Your task to perform on an android device: see creations saved in the google photos Image 0: 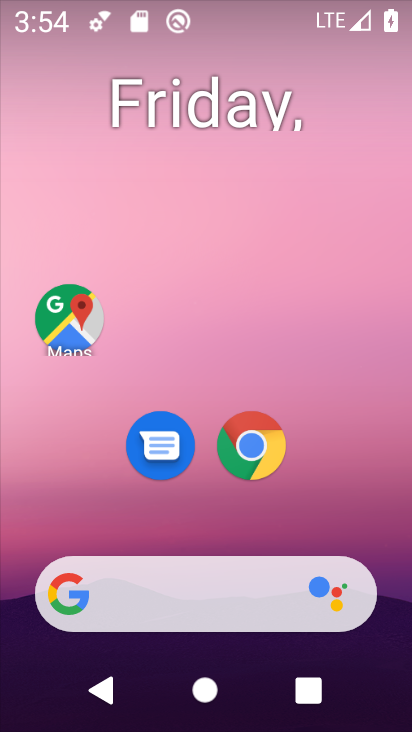
Step 0: drag from (389, 557) to (338, 169)
Your task to perform on an android device: see creations saved in the google photos Image 1: 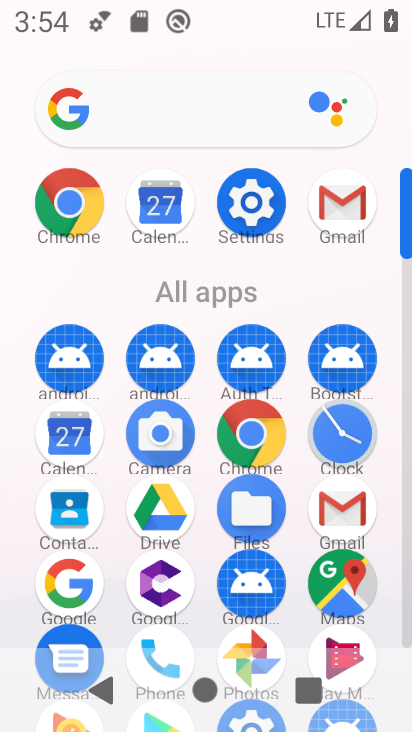
Step 1: click (261, 639)
Your task to perform on an android device: see creations saved in the google photos Image 2: 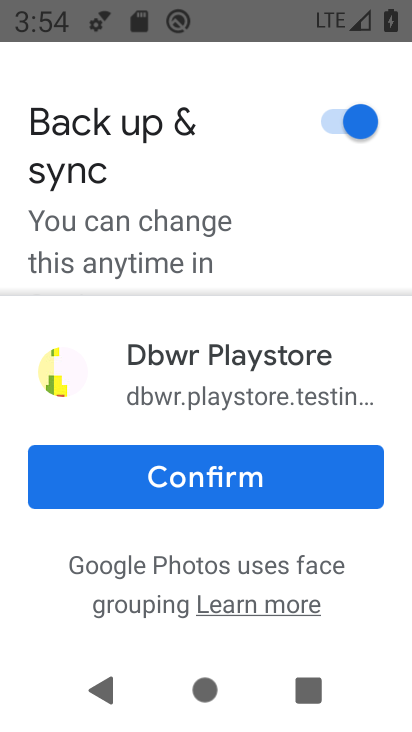
Step 2: drag from (222, 468) to (183, 468)
Your task to perform on an android device: see creations saved in the google photos Image 3: 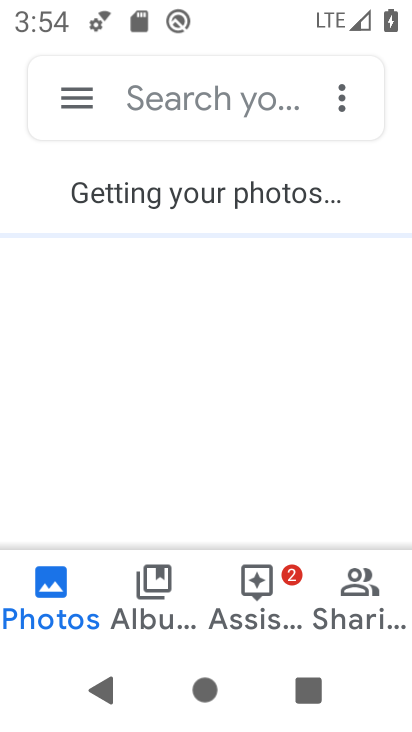
Step 3: click (228, 100)
Your task to perform on an android device: see creations saved in the google photos Image 4: 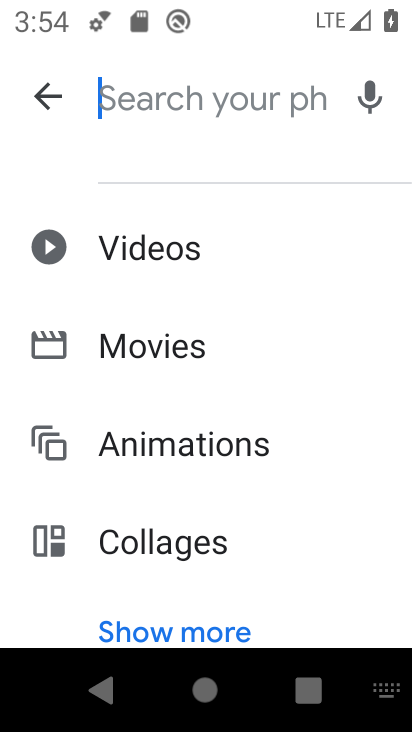
Step 4: click (163, 638)
Your task to perform on an android device: see creations saved in the google photos Image 5: 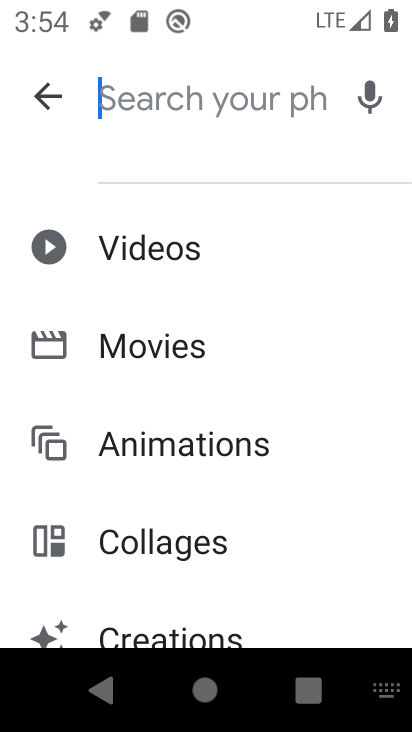
Step 5: drag from (161, 600) to (138, 387)
Your task to perform on an android device: see creations saved in the google photos Image 6: 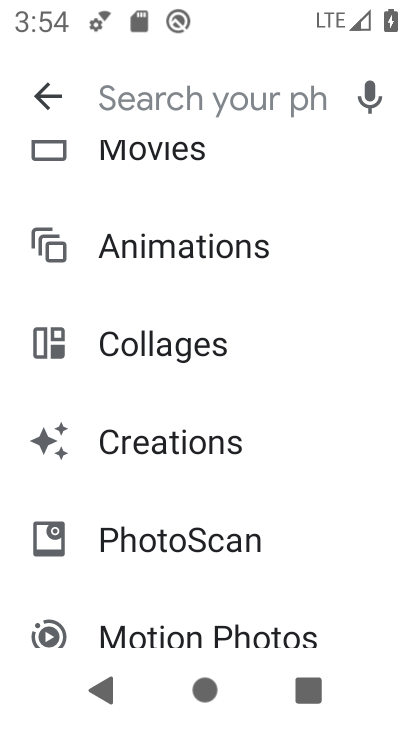
Step 6: click (145, 438)
Your task to perform on an android device: see creations saved in the google photos Image 7: 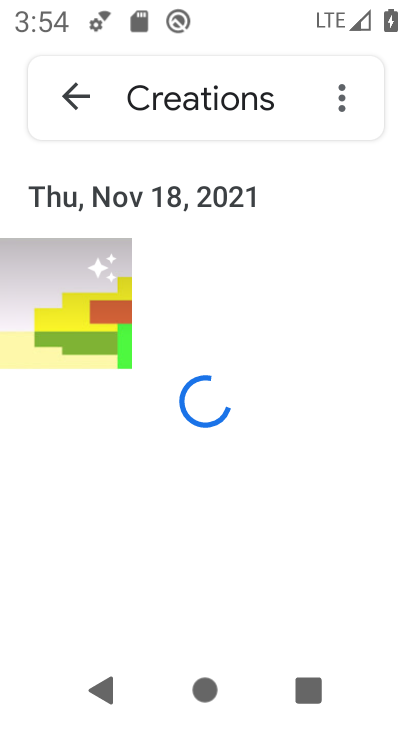
Step 7: task complete